Your task to perform on an android device: Search for razer kraken on target, select the first entry, and add it to the cart. Image 0: 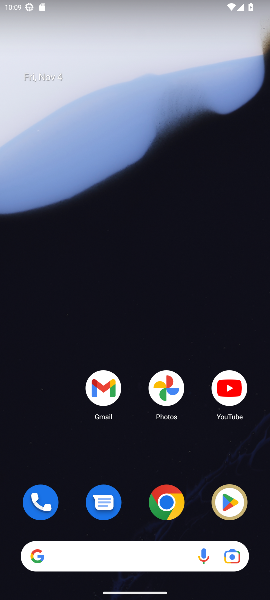
Step 0: click (167, 497)
Your task to perform on an android device: Search for razer kraken on target, select the first entry, and add it to the cart. Image 1: 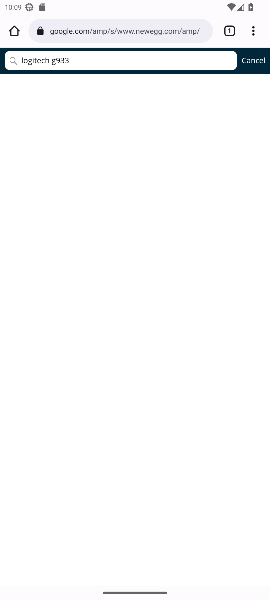
Step 1: click (136, 26)
Your task to perform on an android device: Search for razer kraken on target, select the first entry, and add it to the cart. Image 2: 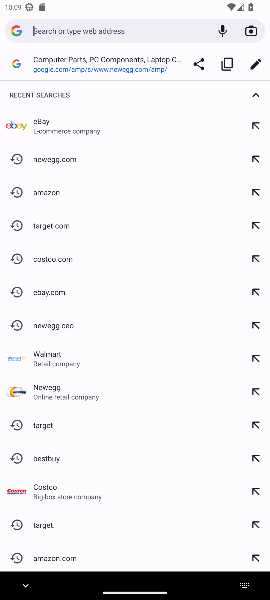
Step 2: type "target"
Your task to perform on an android device: Search for razer kraken on target, select the first entry, and add it to the cart. Image 3: 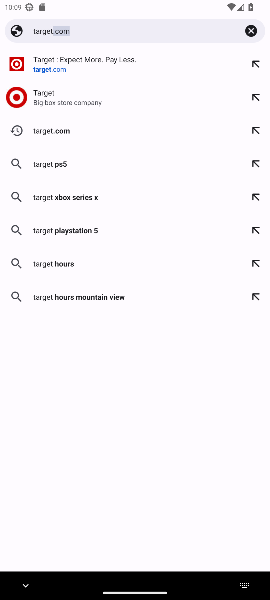
Step 3: click (163, 25)
Your task to perform on an android device: Search for razer kraken on target, select the first entry, and add it to the cart. Image 4: 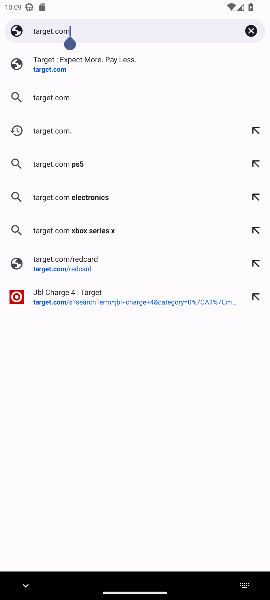
Step 4: click (53, 128)
Your task to perform on an android device: Search for razer kraken on target, select the first entry, and add it to the cart. Image 5: 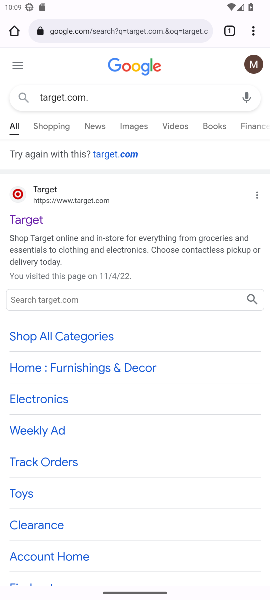
Step 5: click (80, 198)
Your task to perform on an android device: Search for razer kraken on target, select the first entry, and add it to the cart. Image 6: 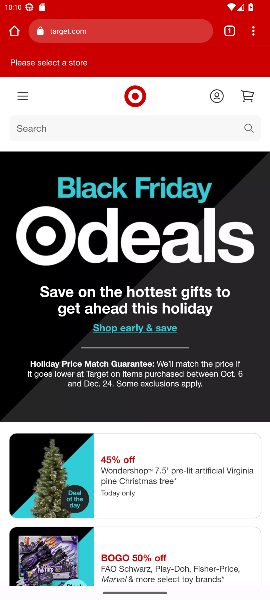
Step 6: click (245, 127)
Your task to perform on an android device: Search for razer kraken on target, select the first entry, and add it to the cart. Image 7: 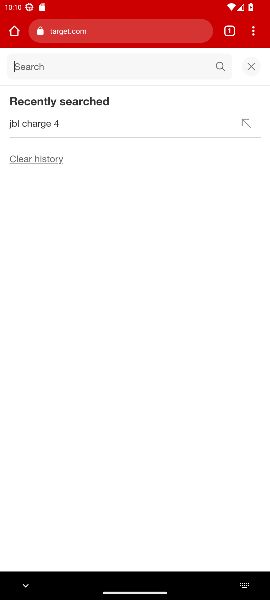
Step 7: type "razer kraken"
Your task to perform on an android device: Search for razer kraken on target, select the first entry, and add it to the cart. Image 8: 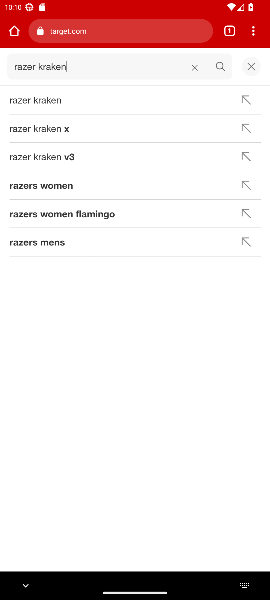
Step 8: click (50, 99)
Your task to perform on an android device: Search for razer kraken on target, select the first entry, and add it to the cart. Image 9: 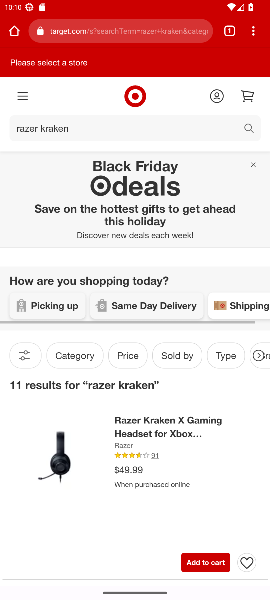
Step 9: click (50, 448)
Your task to perform on an android device: Search for razer kraken on target, select the first entry, and add it to the cart. Image 10: 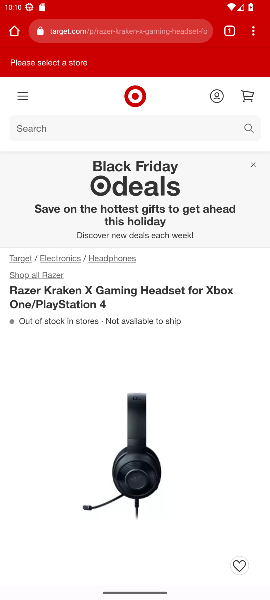
Step 10: drag from (98, 461) to (159, 134)
Your task to perform on an android device: Search for razer kraken on target, select the first entry, and add it to the cart. Image 11: 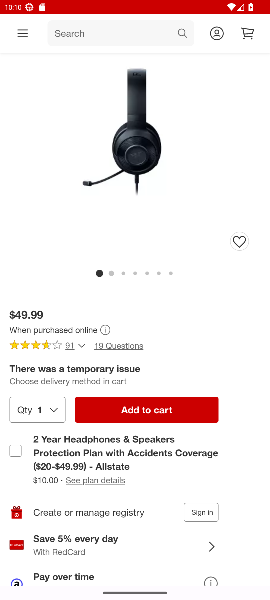
Step 11: click (164, 405)
Your task to perform on an android device: Search for razer kraken on target, select the first entry, and add it to the cart. Image 12: 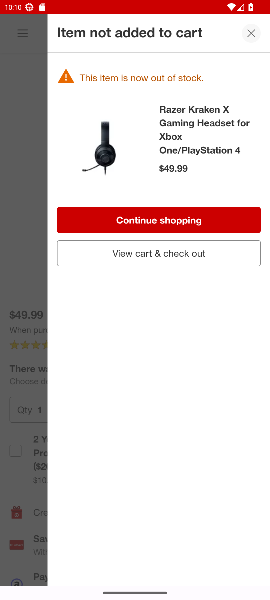
Step 12: press back button
Your task to perform on an android device: Search for razer kraken on target, select the first entry, and add it to the cart. Image 13: 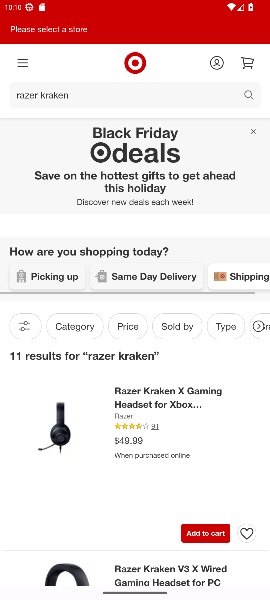
Step 13: click (196, 533)
Your task to perform on an android device: Search for razer kraken on target, select the first entry, and add it to the cart. Image 14: 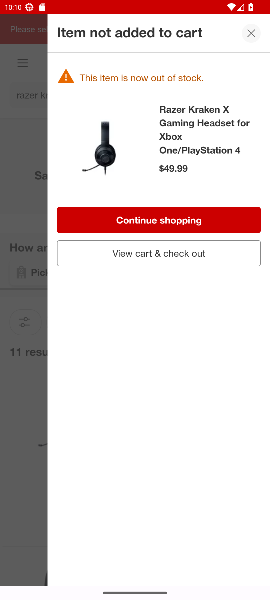
Step 14: click (193, 246)
Your task to perform on an android device: Search for razer kraken on target, select the first entry, and add it to the cart. Image 15: 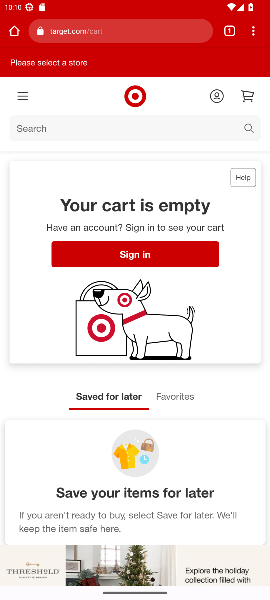
Step 15: drag from (217, 408) to (225, 188)
Your task to perform on an android device: Search for razer kraken on target, select the first entry, and add it to the cart. Image 16: 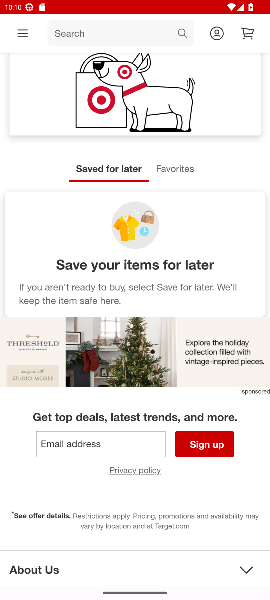
Step 16: press back button
Your task to perform on an android device: Search for razer kraken on target, select the first entry, and add it to the cart. Image 17: 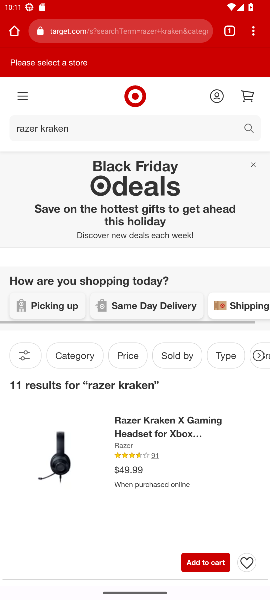
Step 17: drag from (184, 456) to (202, 191)
Your task to perform on an android device: Search for razer kraken on target, select the first entry, and add it to the cart. Image 18: 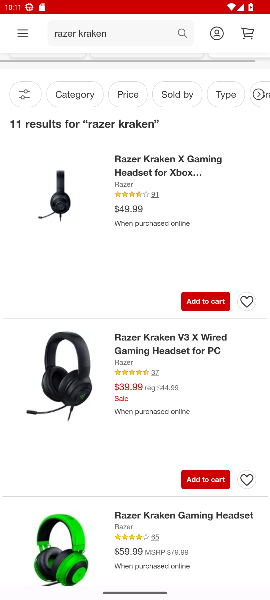
Step 18: click (62, 369)
Your task to perform on an android device: Search for razer kraken on target, select the first entry, and add it to the cart. Image 19: 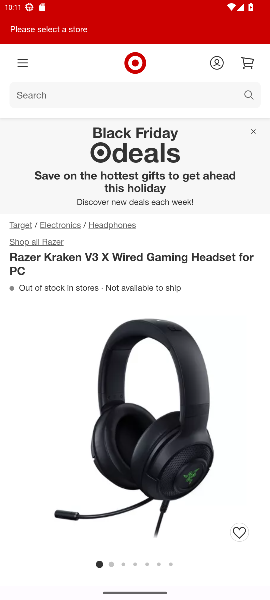
Step 19: drag from (151, 413) to (212, 125)
Your task to perform on an android device: Search for razer kraken on target, select the first entry, and add it to the cart. Image 20: 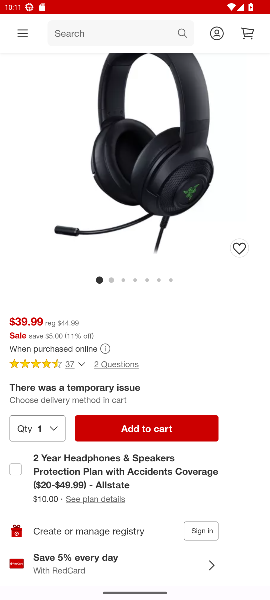
Step 20: click (151, 429)
Your task to perform on an android device: Search for razer kraken on target, select the first entry, and add it to the cart. Image 21: 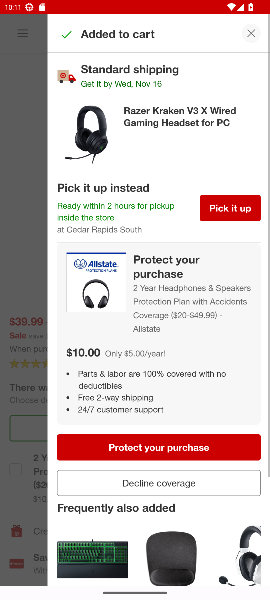
Step 21: task complete